Your task to perform on an android device: turn off translation in the chrome app Image 0: 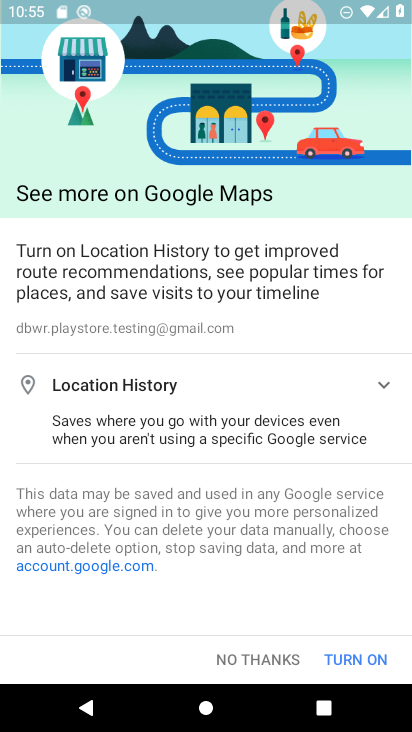
Step 0: press home button
Your task to perform on an android device: turn off translation in the chrome app Image 1: 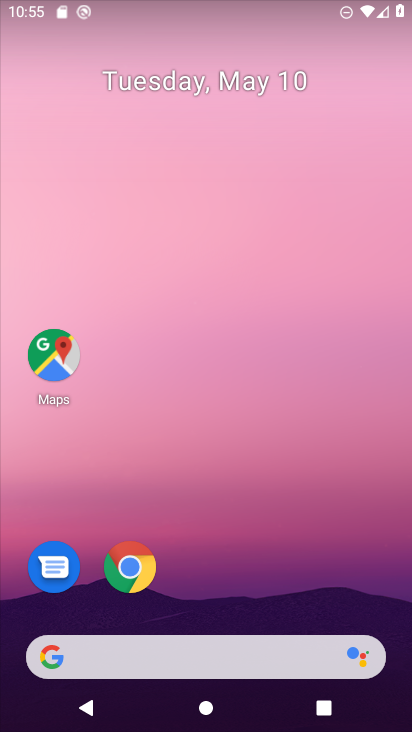
Step 1: click (141, 561)
Your task to perform on an android device: turn off translation in the chrome app Image 2: 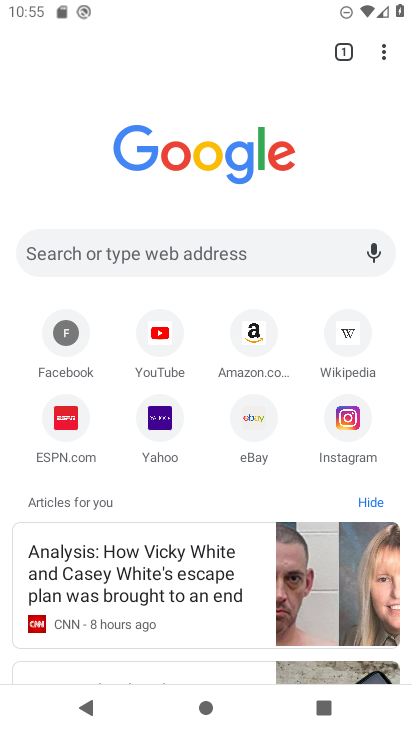
Step 2: drag from (387, 57) to (244, 441)
Your task to perform on an android device: turn off translation in the chrome app Image 3: 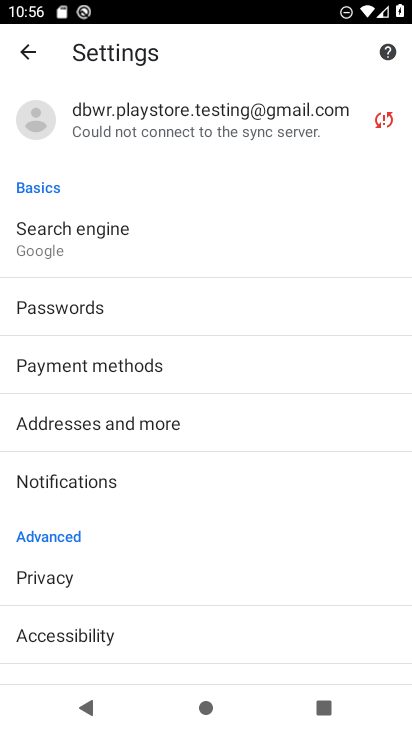
Step 3: drag from (184, 593) to (197, 235)
Your task to perform on an android device: turn off translation in the chrome app Image 4: 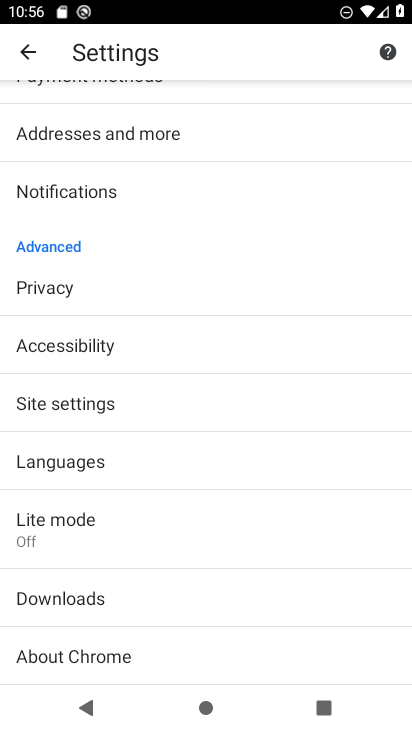
Step 4: click (78, 467)
Your task to perform on an android device: turn off translation in the chrome app Image 5: 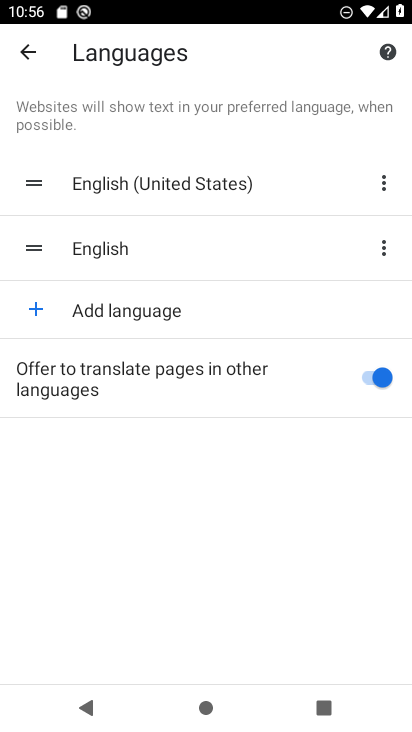
Step 5: click (366, 376)
Your task to perform on an android device: turn off translation in the chrome app Image 6: 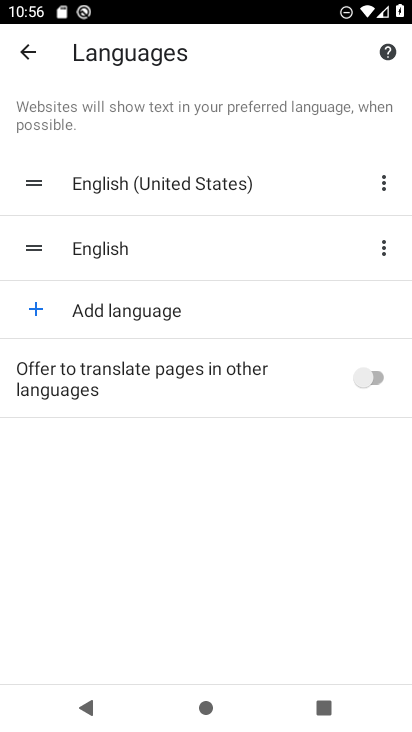
Step 6: task complete